Your task to perform on an android device: Open my contact list Image 0: 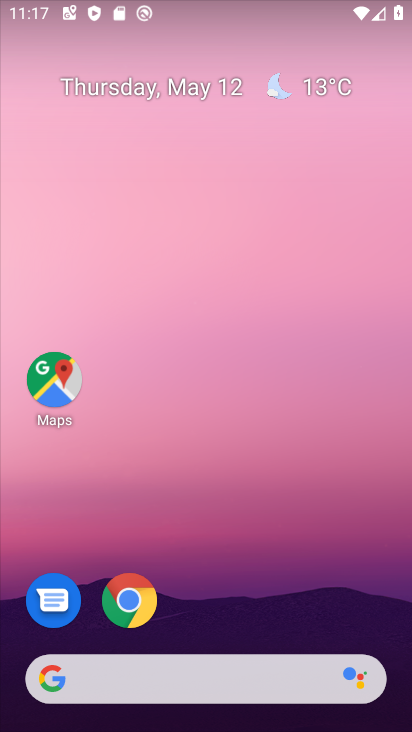
Step 0: drag from (361, 506) to (280, 0)
Your task to perform on an android device: Open my contact list Image 1: 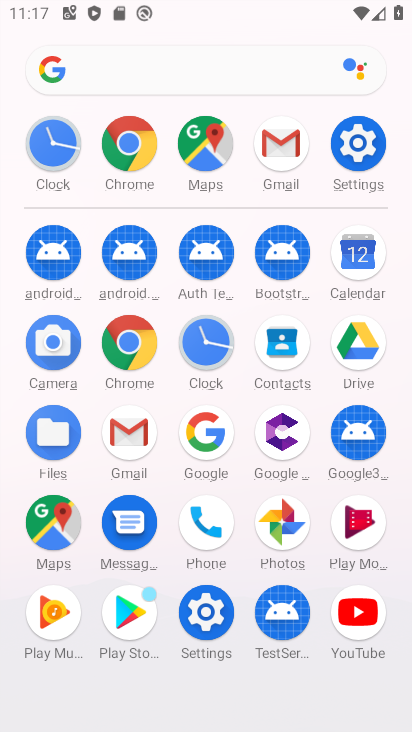
Step 1: click (280, 339)
Your task to perform on an android device: Open my contact list Image 2: 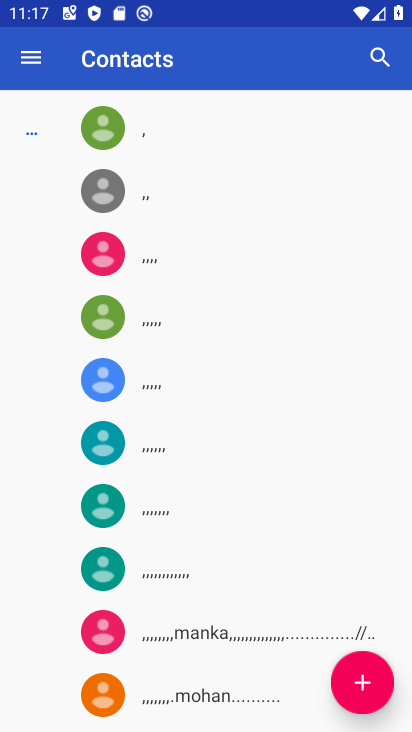
Step 2: task complete